Your task to perform on an android device: Go to notification settings Image 0: 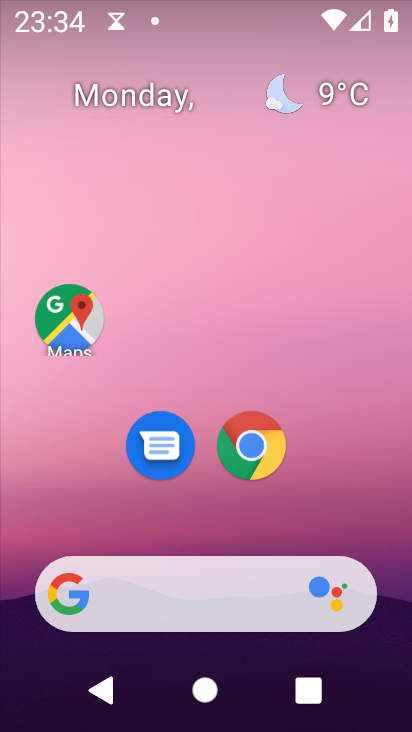
Step 0: drag from (274, 592) to (289, 9)
Your task to perform on an android device: Go to notification settings Image 1: 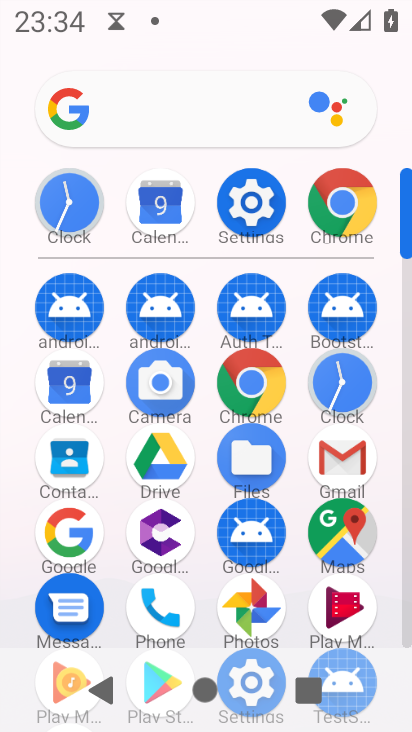
Step 1: click (247, 228)
Your task to perform on an android device: Go to notification settings Image 2: 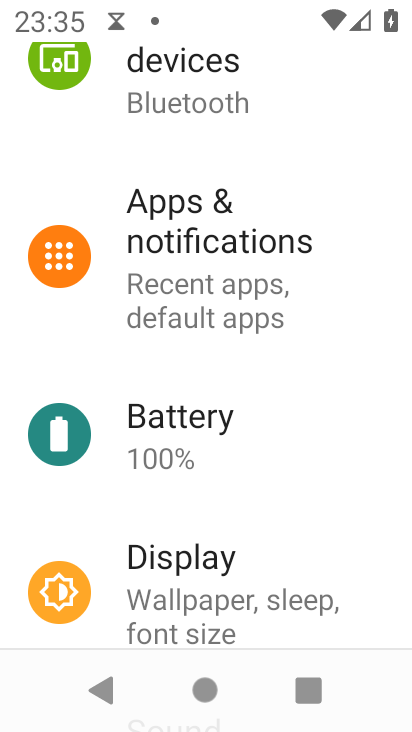
Step 2: click (249, 292)
Your task to perform on an android device: Go to notification settings Image 3: 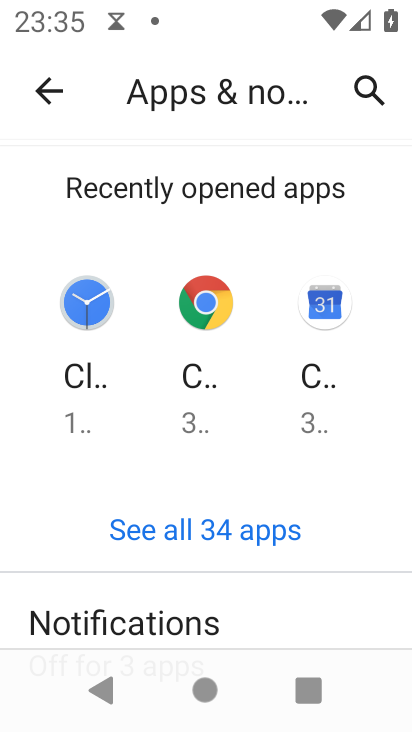
Step 3: task complete